Your task to perform on an android device: turn on the 24-hour format for clock Image 0: 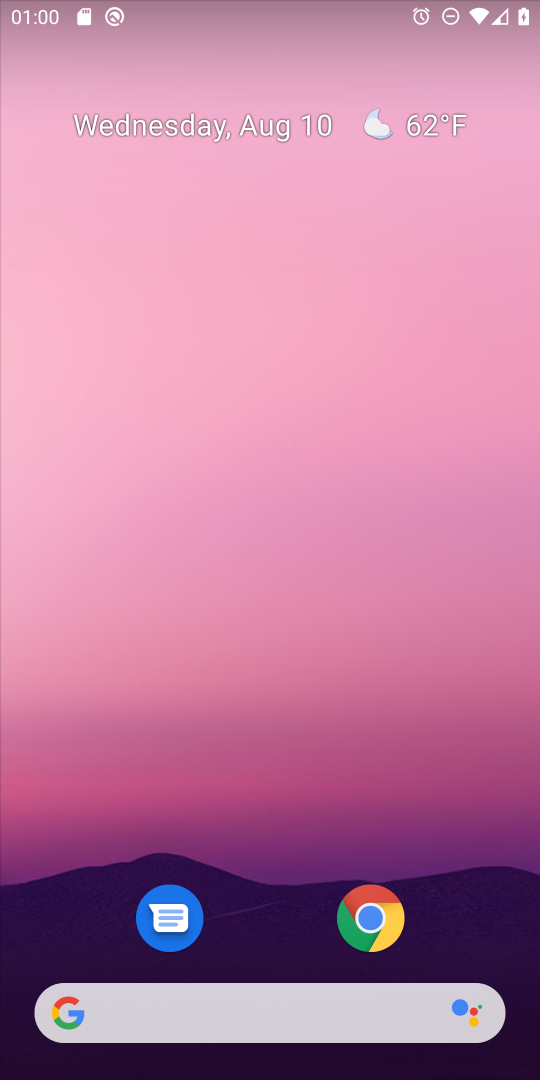
Step 0: drag from (270, 956) to (273, 121)
Your task to perform on an android device: turn on the 24-hour format for clock Image 1: 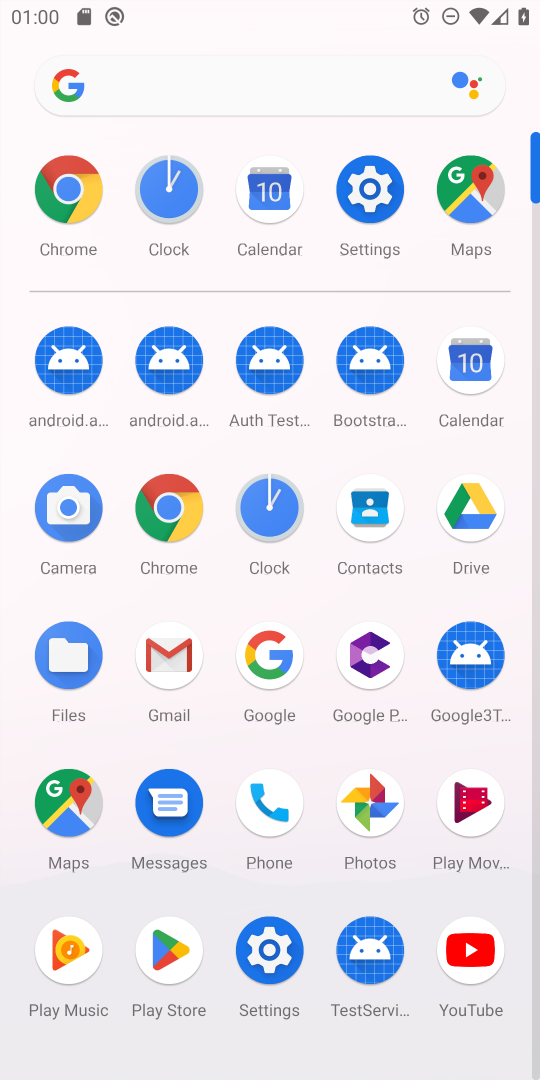
Step 1: click (259, 509)
Your task to perform on an android device: turn on the 24-hour format for clock Image 2: 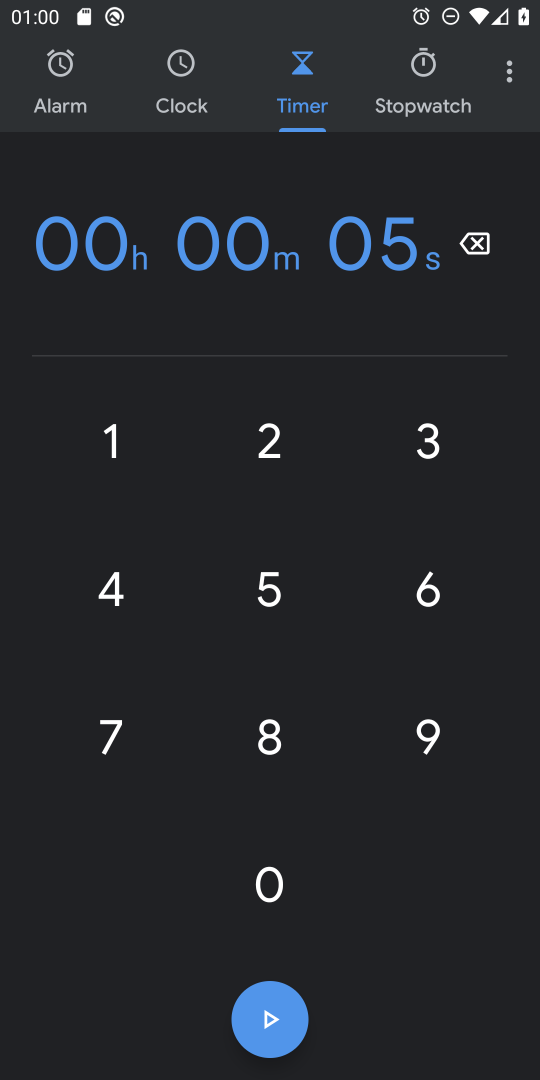
Step 2: click (512, 75)
Your task to perform on an android device: turn on the 24-hour format for clock Image 3: 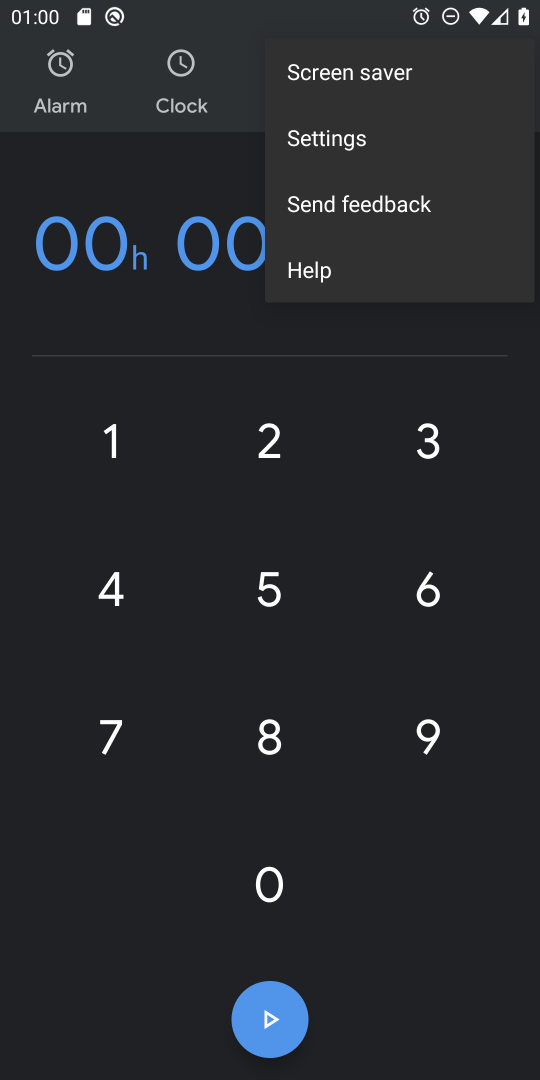
Step 3: click (360, 156)
Your task to perform on an android device: turn on the 24-hour format for clock Image 4: 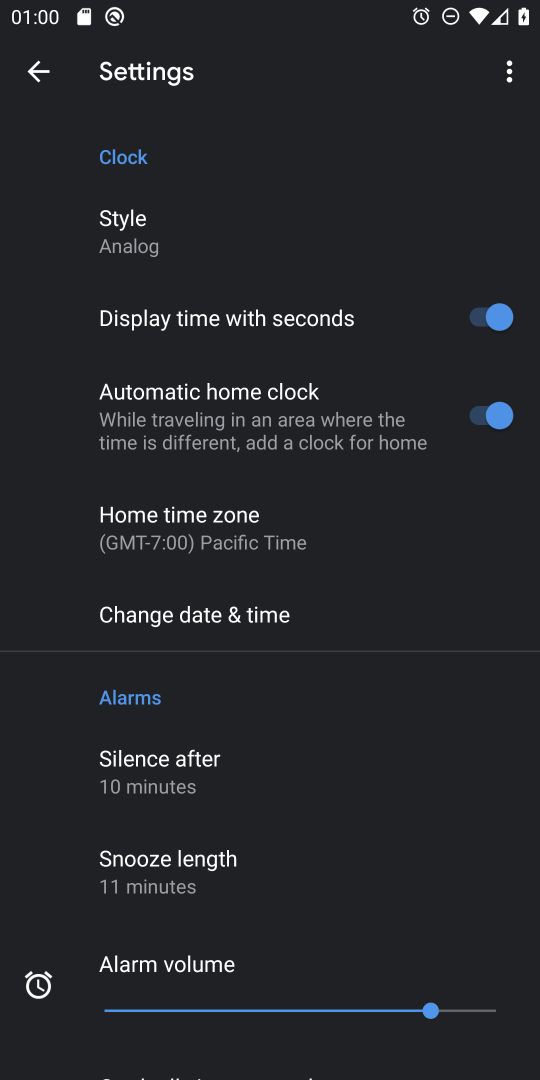
Step 4: click (226, 625)
Your task to perform on an android device: turn on the 24-hour format for clock Image 5: 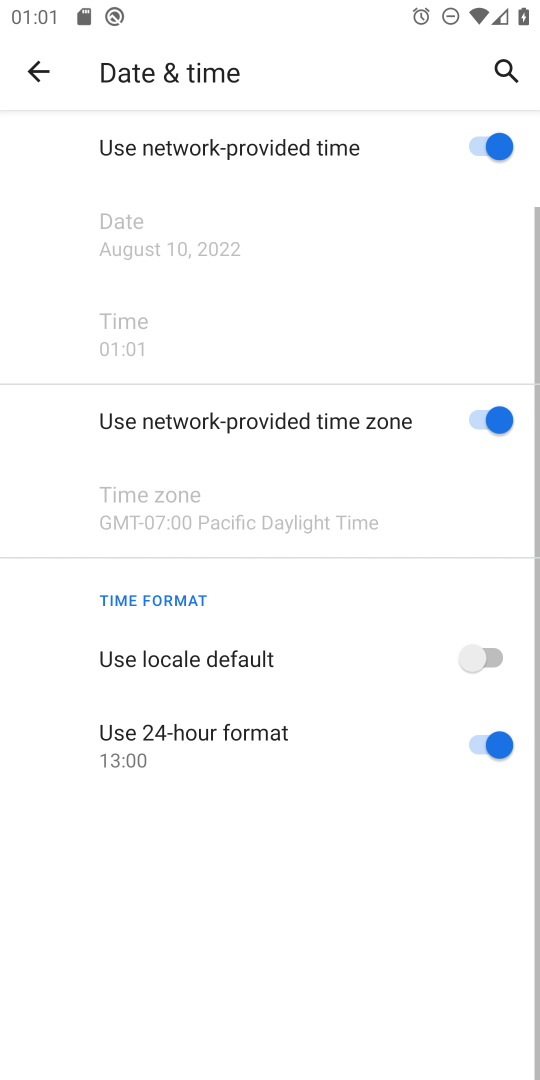
Step 5: task complete